Your task to perform on an android device: change notifications settings Image 0: 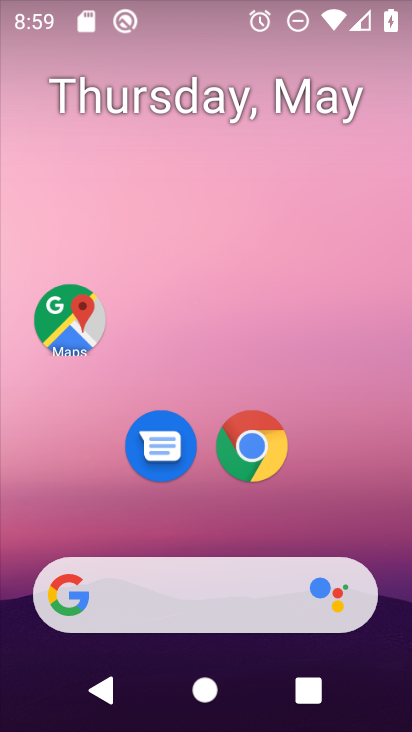
Step 0: drag from (371, 513) to (373, 188)
Your task to perform on an android device: change notifications settings Image 1: 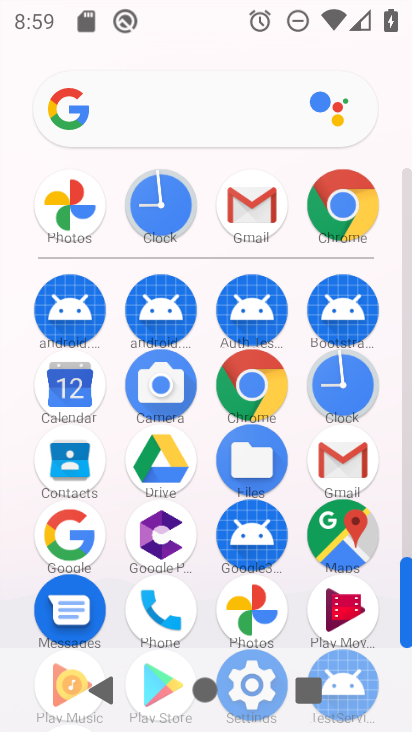
Step 1: drag from (290, 641) to (313, 284)
Your task to perform on an android device: change notifications settings Image 2: 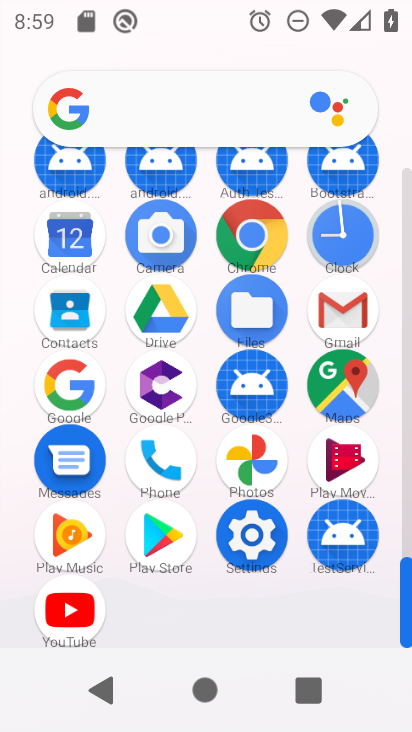
Step 2: click (257, 550)
Your task to perform on an android device: change notifications settings Image 3: 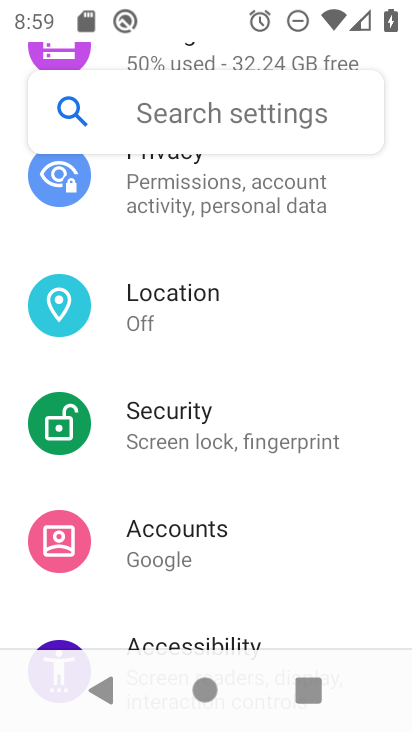
Step 3: drag from (265, 217) to (236, 585)
Your task to perform on an android device: change notifications settings Image 4: 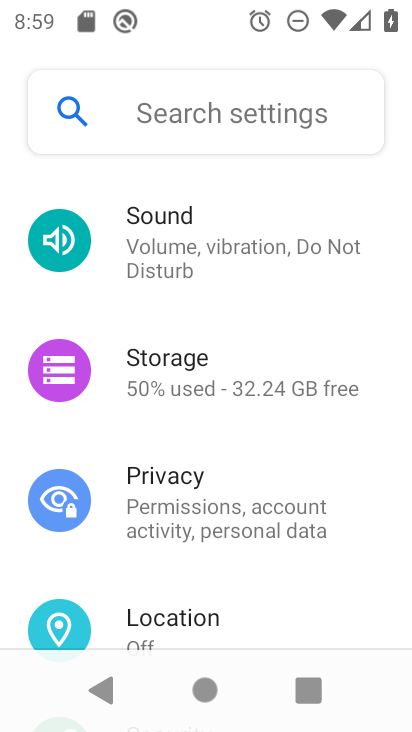
Step 4: drag from (232, 316) to (226, 577)
Your task to perform on an android device: change notifications settings Image 5: 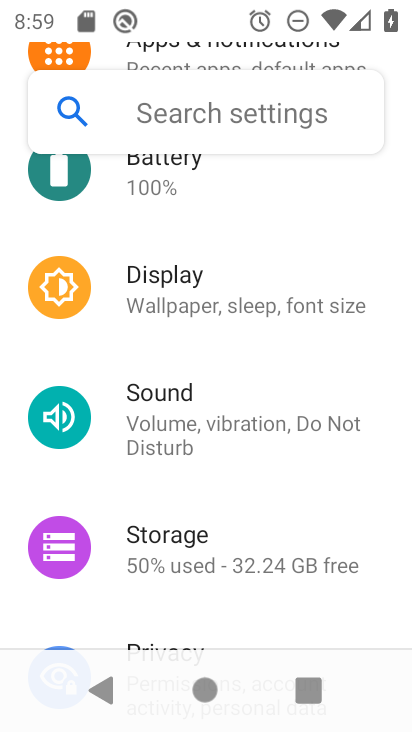
Step 5: drag from (248, 274) to (264, 580)
Your task to perform on an android device: change notifications settings Image 6: 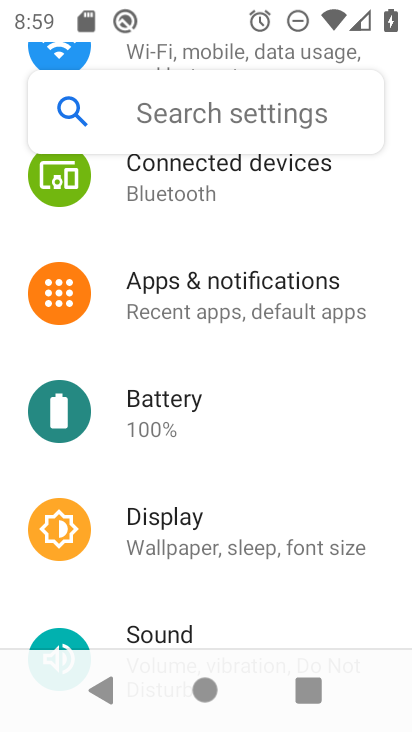
Step 6: click (254, 290)
Your task to perform on an android device: change notifications settings Image 7: 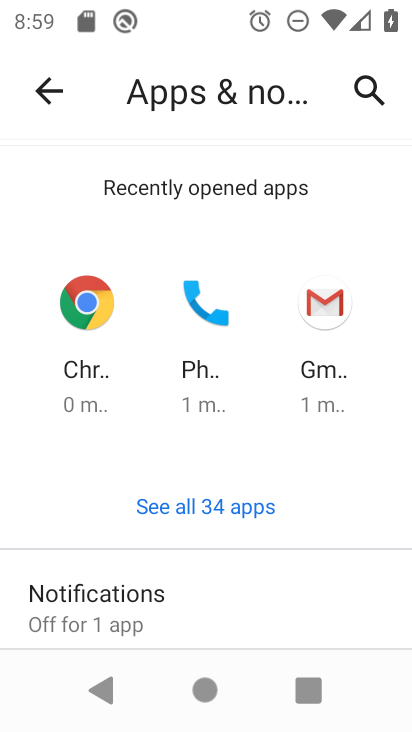
Step 7: drag from (263, 614) to (274, 286)
Your task to perform on an android device: change notifications settings Image 8: 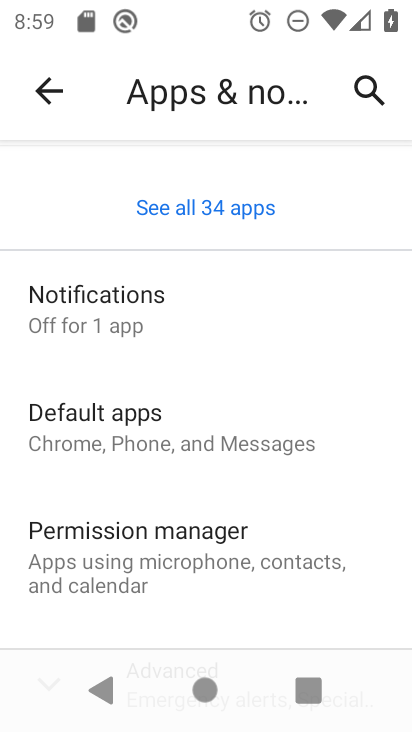
Step 8: click (30, 320)
Your task to perform on an android device: change notifications settings Image 9: 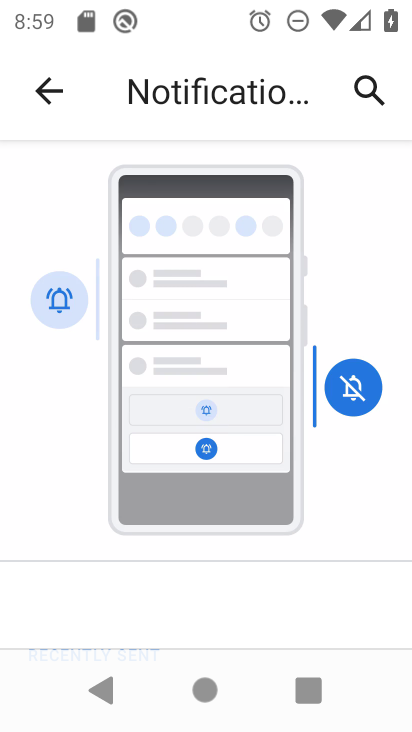
Step 9: drag from (307, 579) to (324, 221)
Your task to perform on an android device: change notifications settings Image 10: 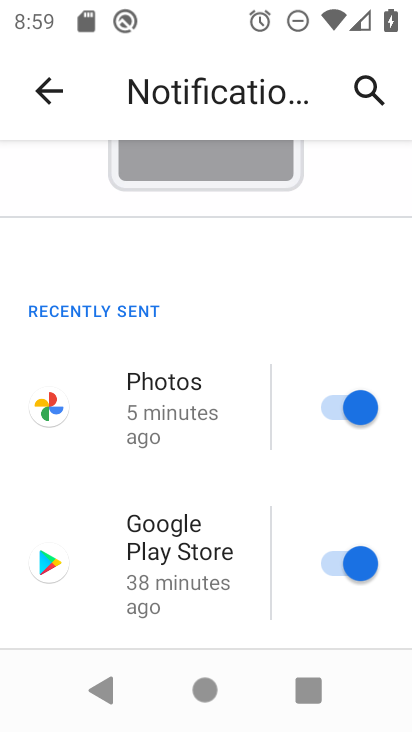
Step 10: click (344, 406)
Your task to perform on an android device: change notifications settings Image 11: 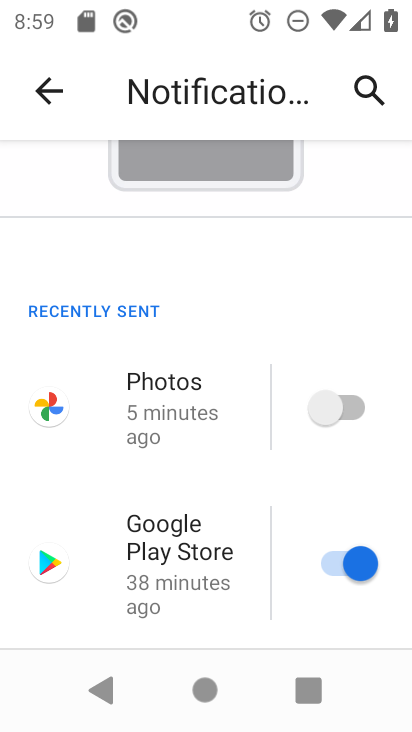
Step 11: click (337, 575)
Your task to perform on an android device: change notifications settings Image 12: 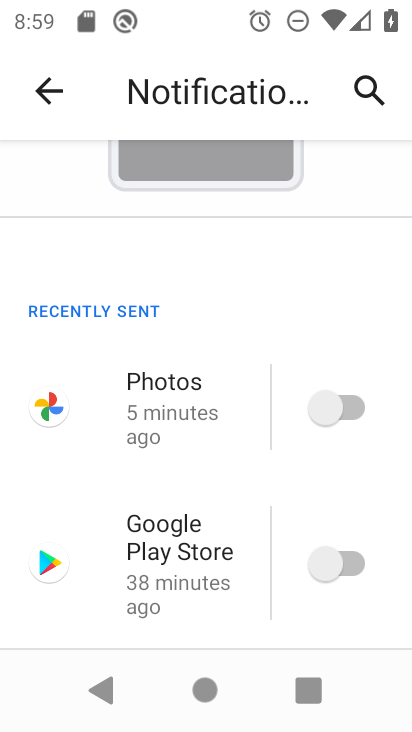
Step 12: task complete